Your task to perform on an android device: install app "Adobe Acrobat Reader: Edit PDF" Image 0: 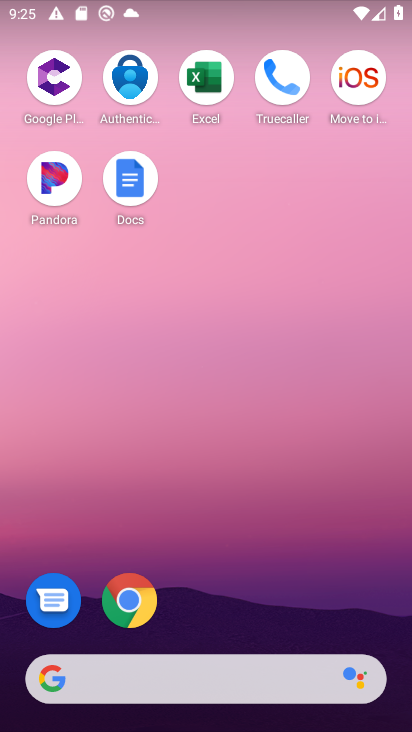
Step 0: drag from (264, 616) to (268, 42)
Your task to perform on an android device: install app "Adobe Acrobat Reader: Edit PDF" Image 1: 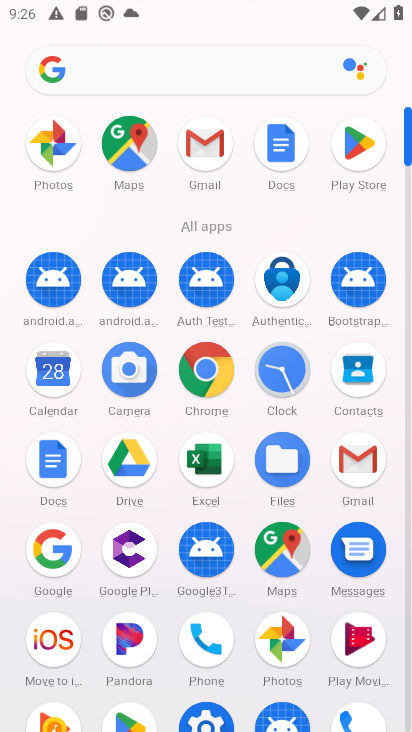
Step 1: click (365, 163)
Your task to perform on an android device: install app "Adobe Acrobat Reader: Edit PDF" Image 2: 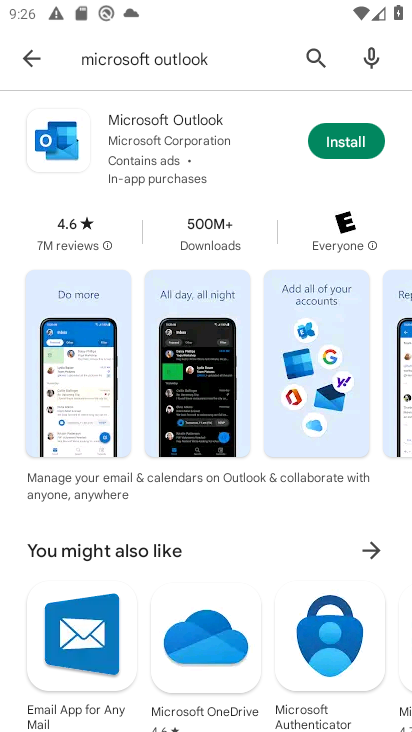
Step 2: click (299, 52)
Your task to perform on an android device: install app "Adobe Acrobat Reader: Edit PDF" Image 3: 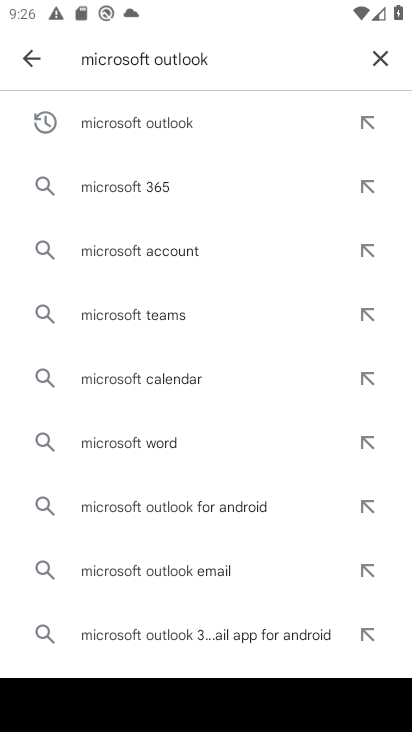
Step 3: click (378, 63)
Your task to perform on an android device: install app "Adobe Acrobat Reader: Edit PDF" Image 4: 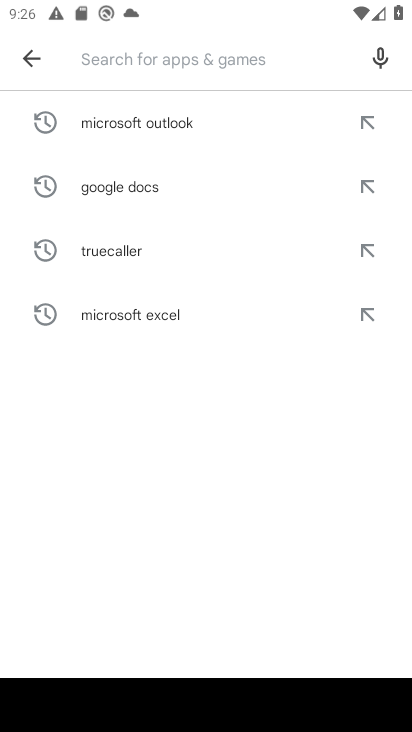
Step 4: type "Adobe Acrobat Reader: Edit PDF"
Your task to perform on an android device: install app "Adobe Acrobat Reader: Edit PDF" Image 5: 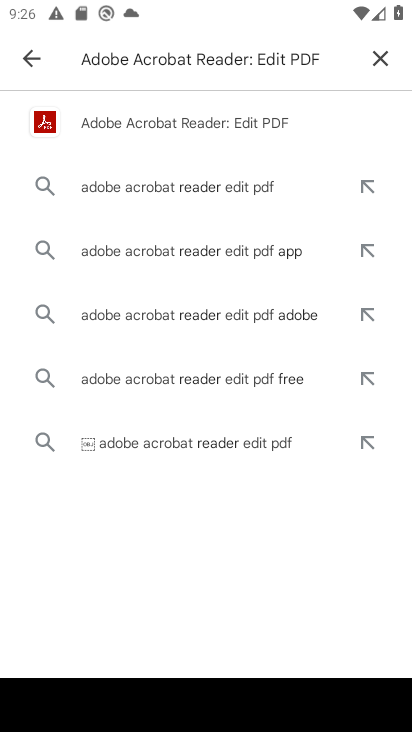
Step 5: click (187, 132)
Your task to perform on an android device: install app "Adobe Acrobat Reader: Edit PDF" Image 6: 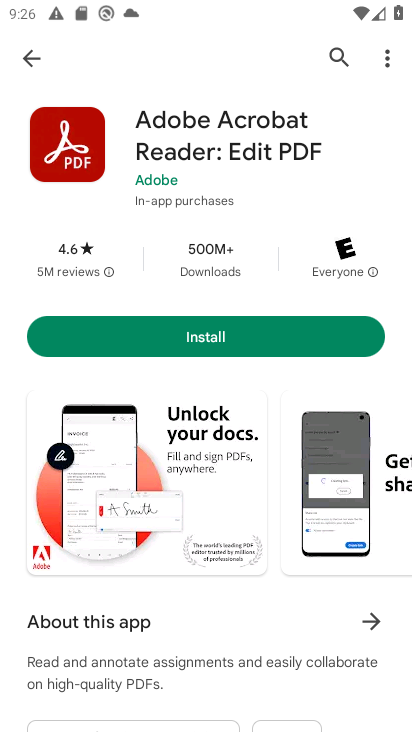
Step 6: click (209, 337)
Your task to perform on an android device: install app "Adobe Acrobat Reader: Edit PDF" Image 7: 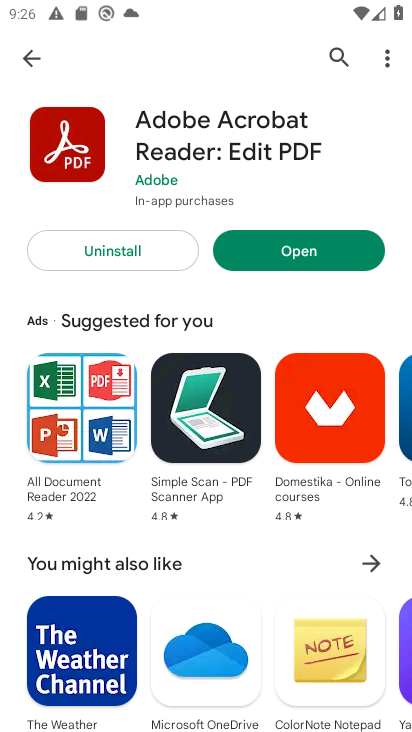
Step 7: task complete